Your task to perform on an android device: turn on airplane mode Image 0: 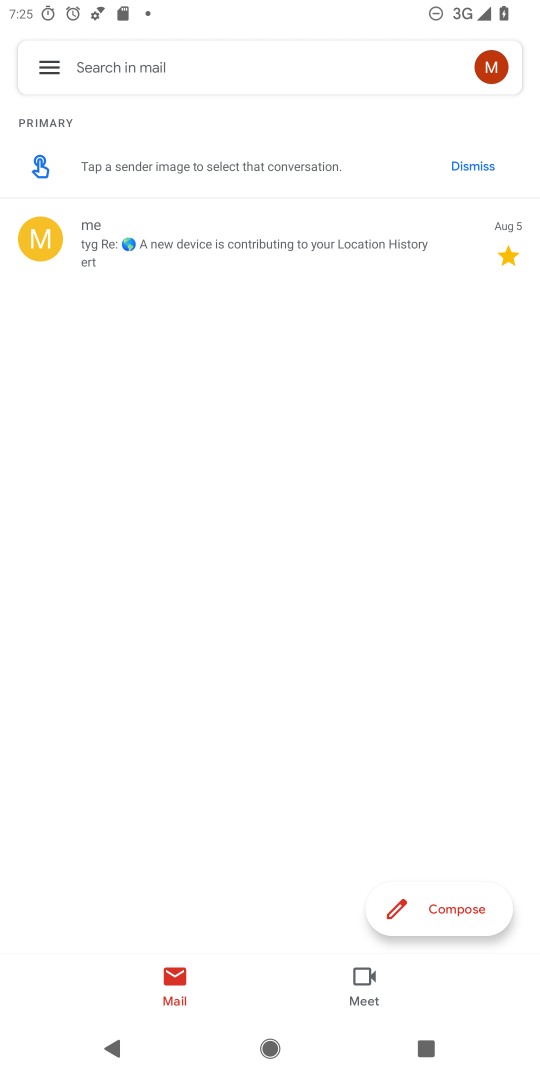
Step 0: press home button
Your task to perform on an android device: turn on airplane mode Image 1: 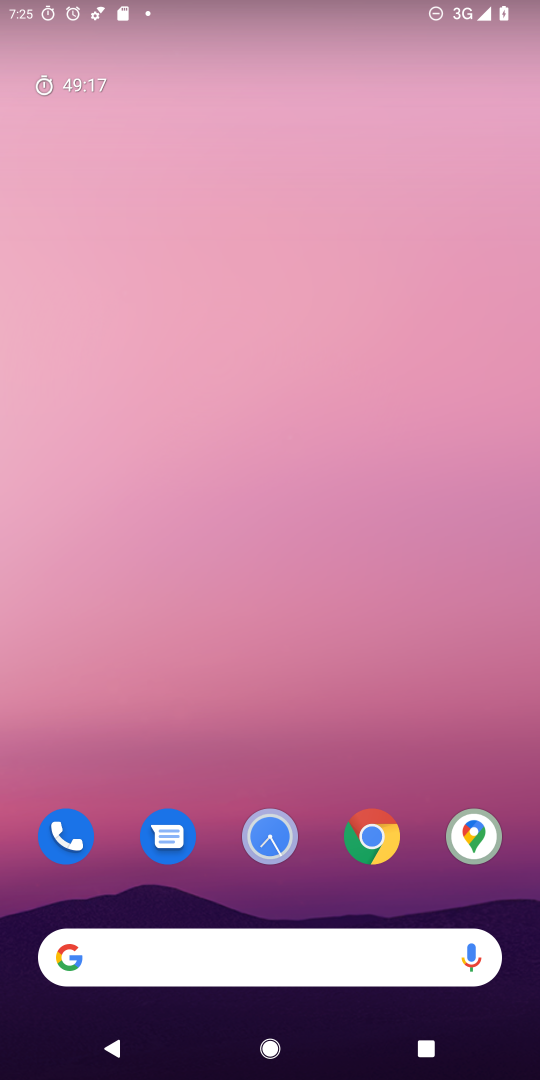
Step 1: drag from (268, 669) to (229, 78)
Your task to perform on an android device: turn on airplane mode Image 2: 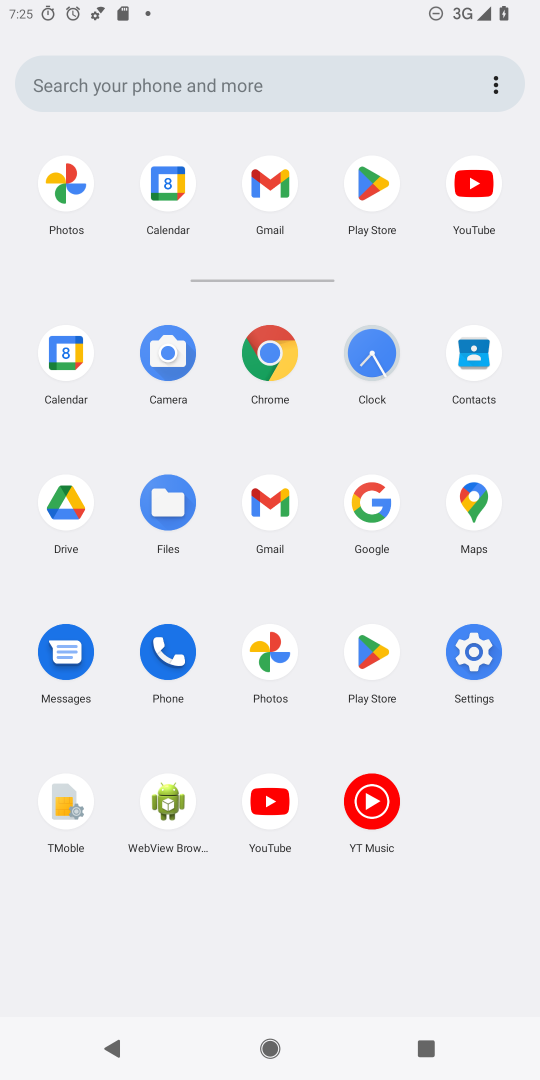
Step 2: click (472, 657)
Your task to perform on an android device: turn on airplane mode Image 3: 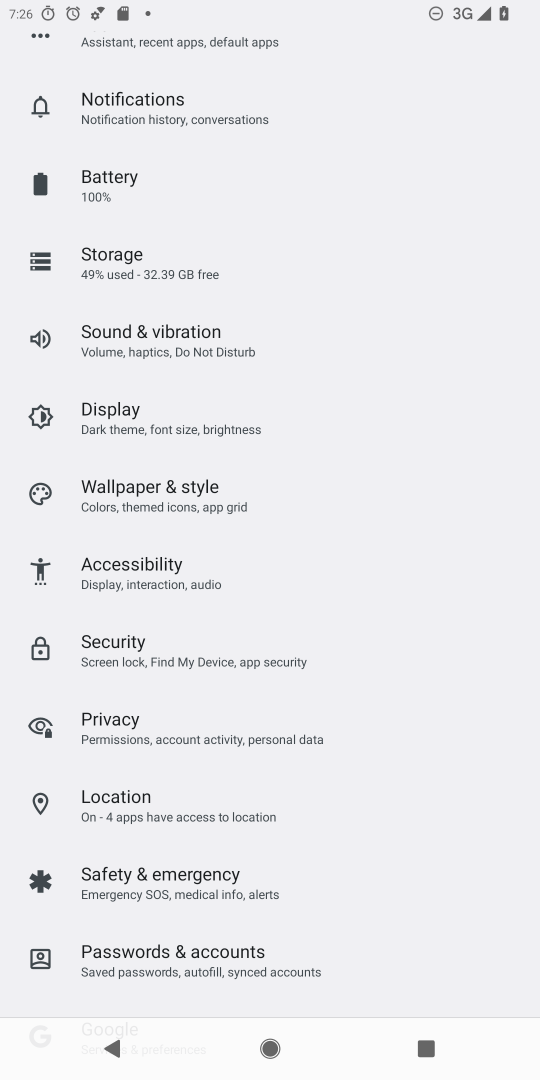
Step 3: drag from (286, 160) to (243, 1004)
Your task to perform on an android device: turn on airplane mode Image 4: 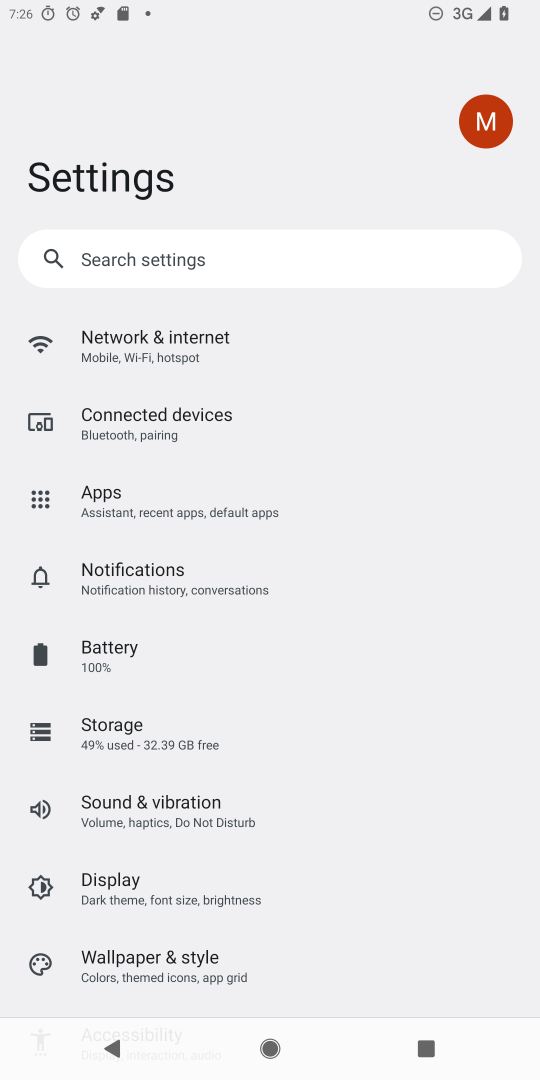
Step 4: click (237, 344)
Your task to perform on an android device: turn on airplane mode Image 5: 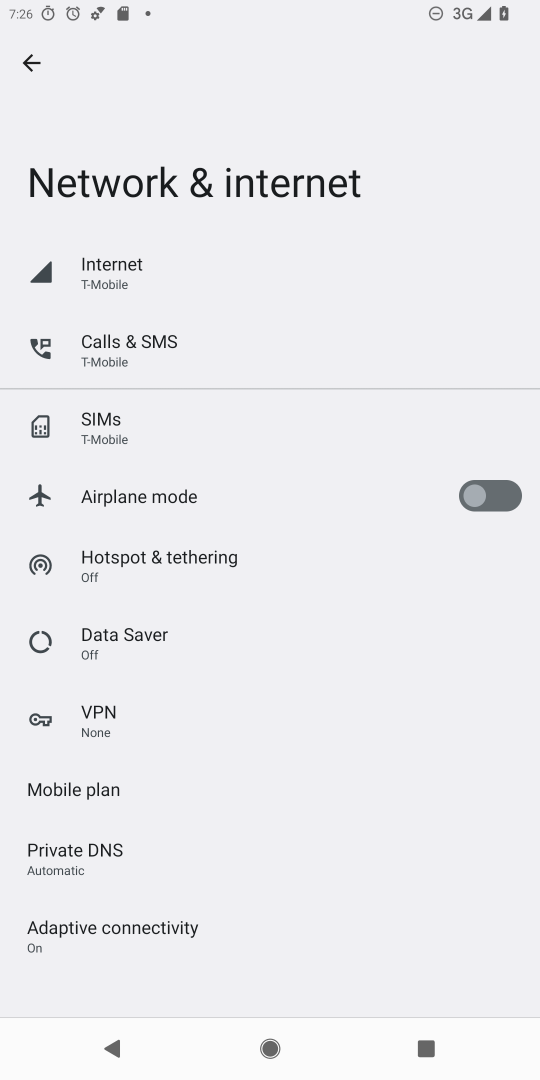
Step 5: click (192, 507)
Your task to perform on an android device: turn on airplane mode Image 6: 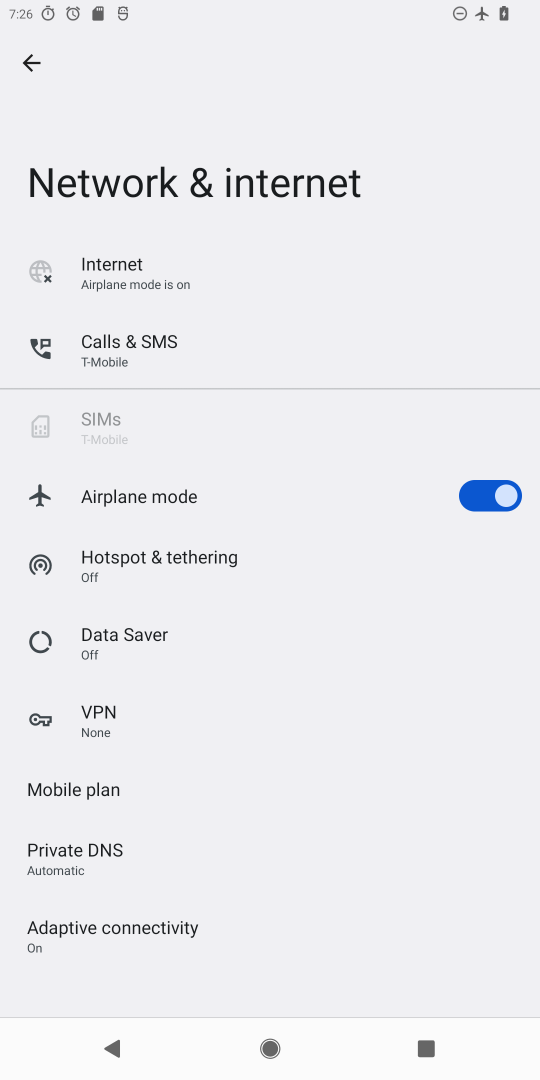
Step 6: task complete